Your task to perform on an android device: check data usage Image 0: 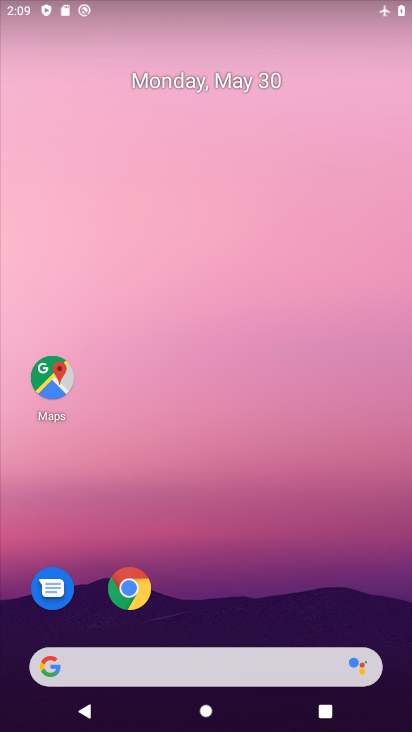
Step 0: drag from (219, 619) to (242, 248)
Your task to perform on an android device: check data usage Image 1: 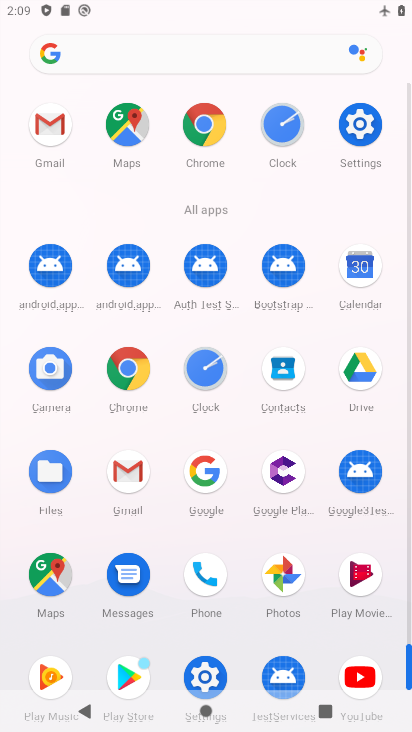
Step 1: click (362, 125)
Your task to perform on an android device: check data usage Image 2: 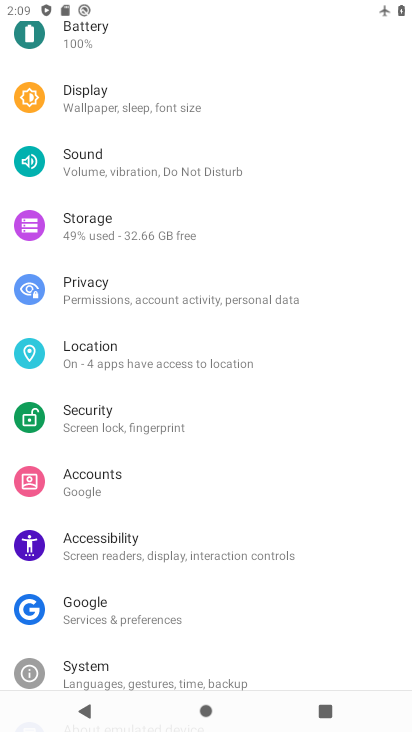
Step 2: drag from (138, 124) to (189, 438)
Your task to perform on an android device: check data usage Image 3: 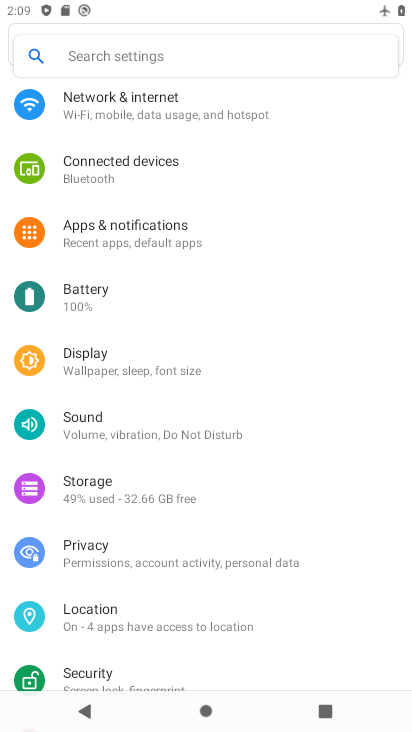
Step 3: click (173, 108)
Your task to perform on an android device: check data usage Image 4: 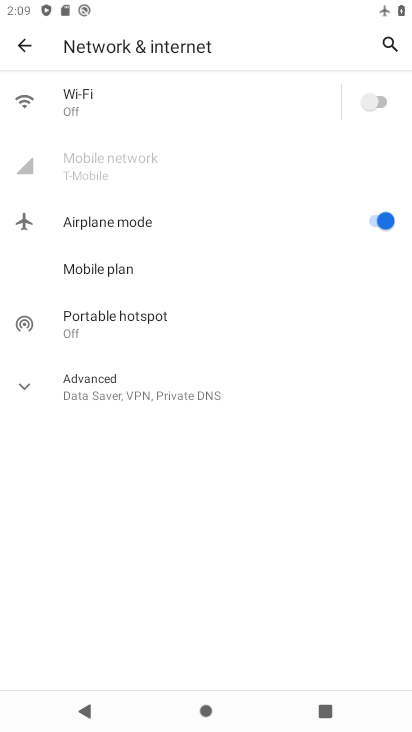
Step 4: click (111, 163)
Your task to perform on an android device: check data usage Image 5: 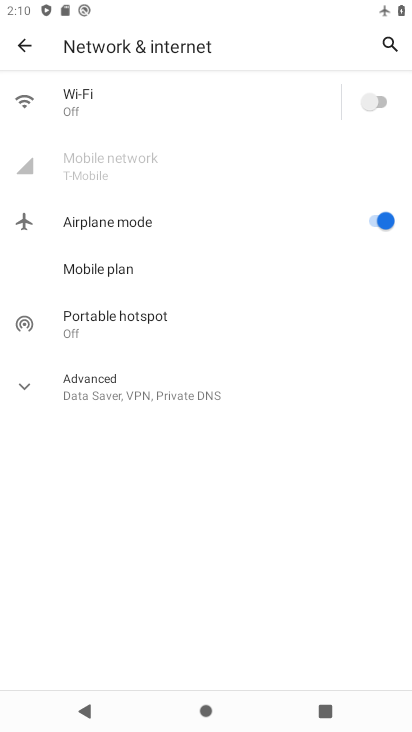
Step 5: task complete